Your task to perform on an android device: open a bookmark in the chrome app Image 0: 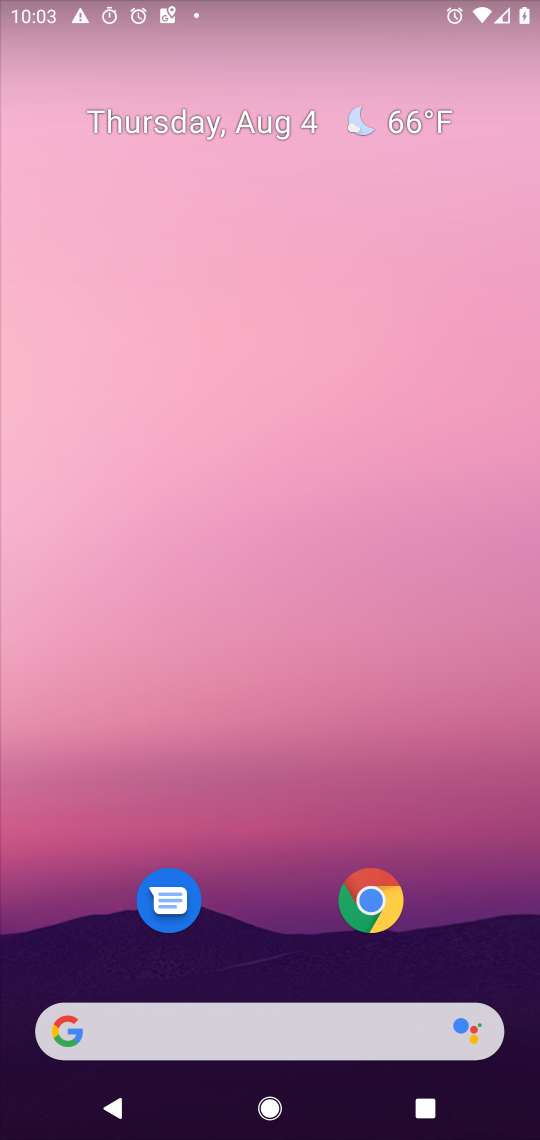
Step 0: click (369, 900)
Your task to perform on an android device: open a bookmark in the chrome app Image 1: 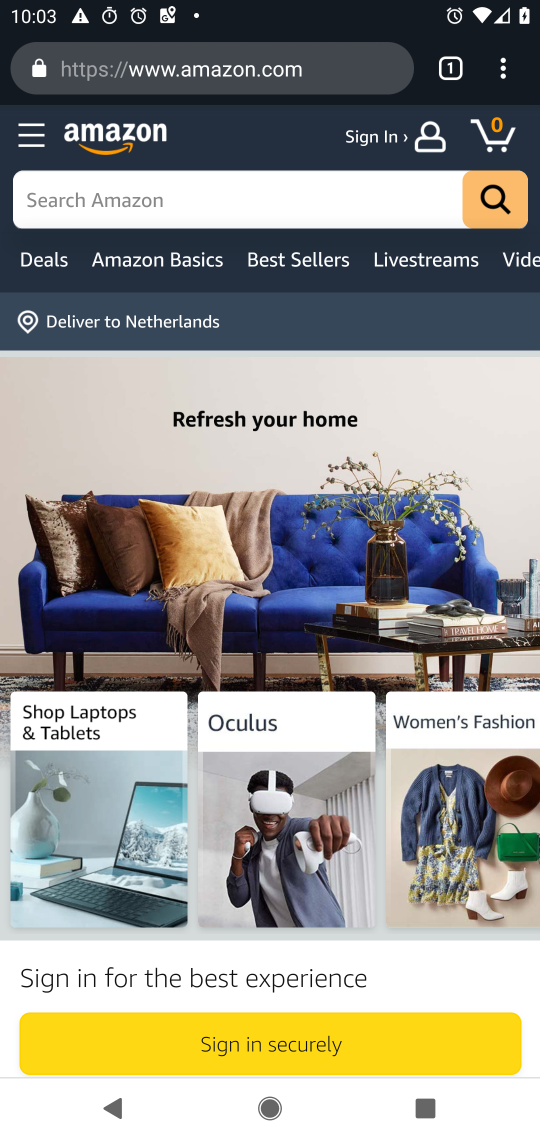
Step 1: click (504, 72)
Your task to perform on an android device: open a bookmark in the chrome app Image 2: 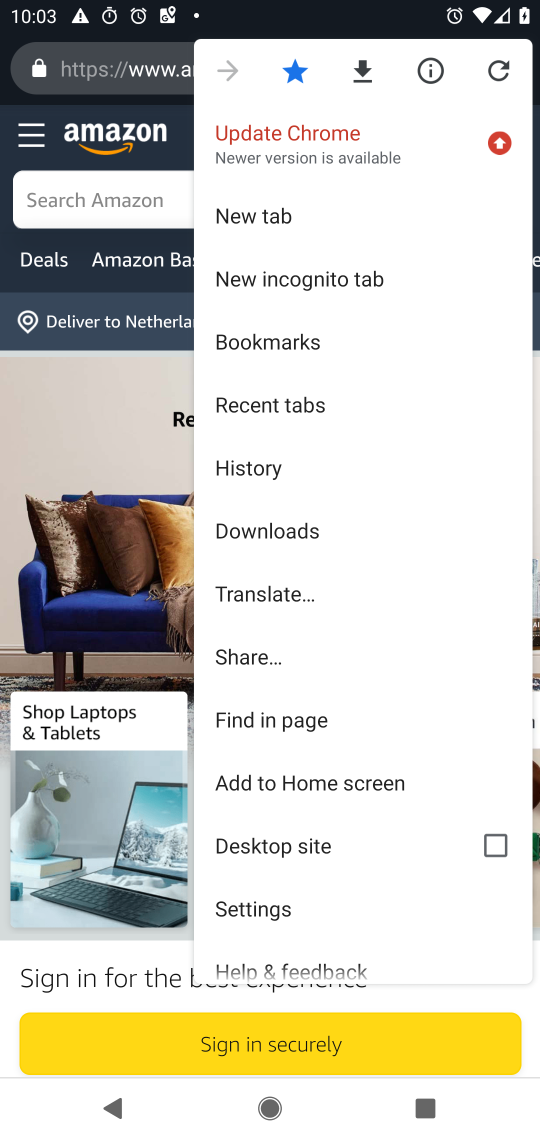
Step 2: click (282, 336)
Your task to perform on an android device: open a bookmark in the chrome app Image 3: 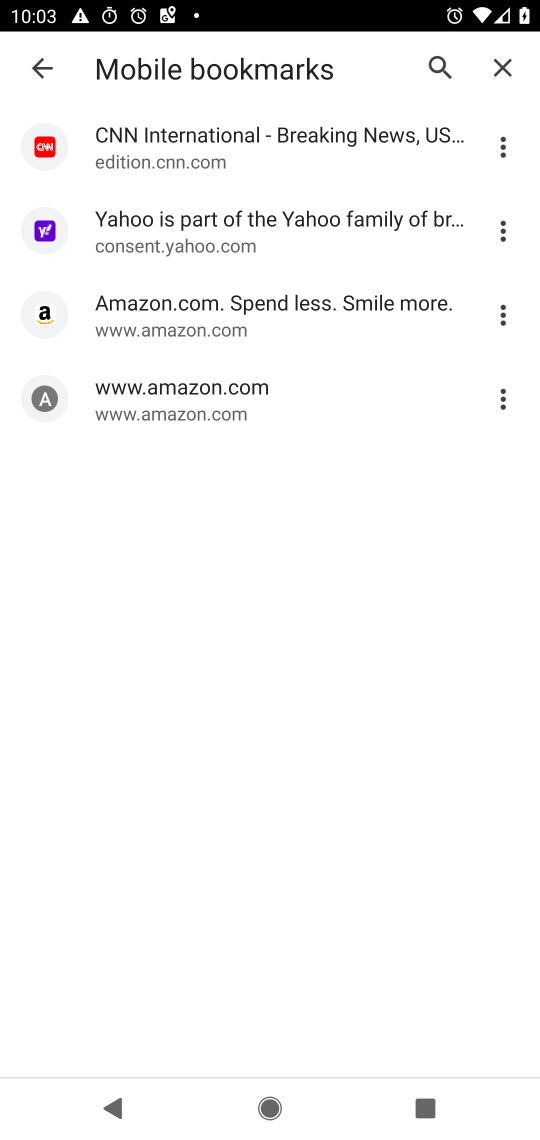
Step 3: task complete